Your task to perform on an android device: add a contact Image 0: 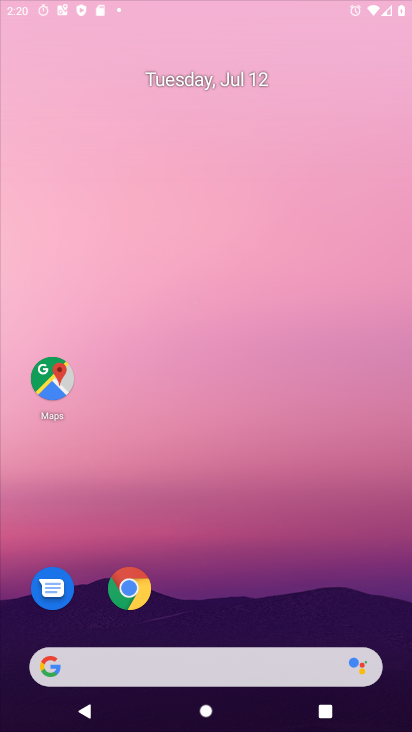
Step 0: click (287, 134)
Your task to perform on an android device: add a contact Image 1: 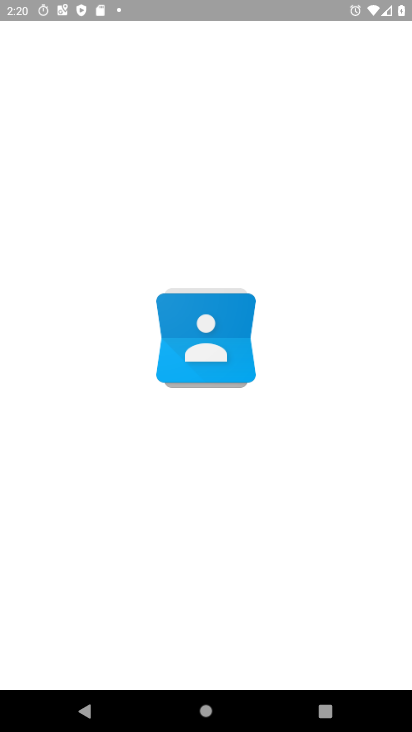
Step 1: drag from (197, 614) to (263, 165)
Your task to perform on an android device: add a contact Image 2: 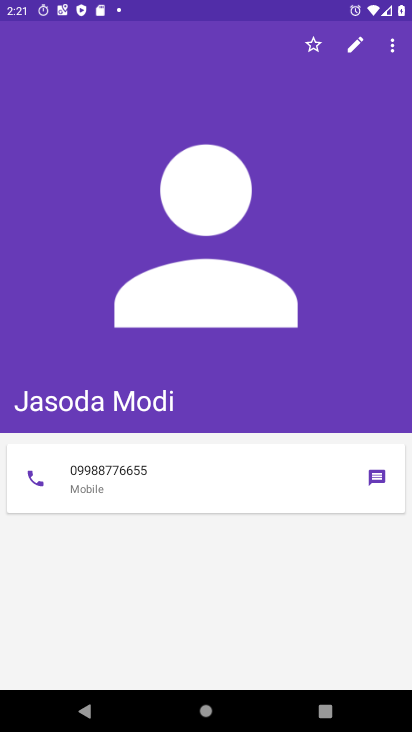
Step 2: press home button
Your task to perform on an android device: add a contact Image 3: 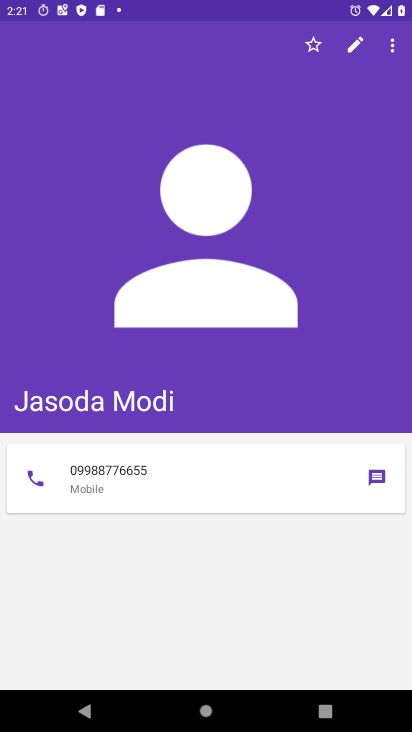
Step 3: press home button
Your task to perform on an android device: add a contact Image 4: 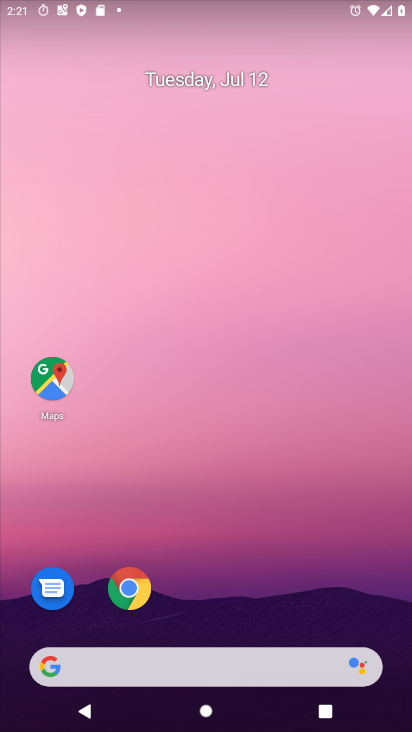
Step 4: drag from (219, 587) to (242, 143)
Your task to perform on an android device: add a contact Image 5: 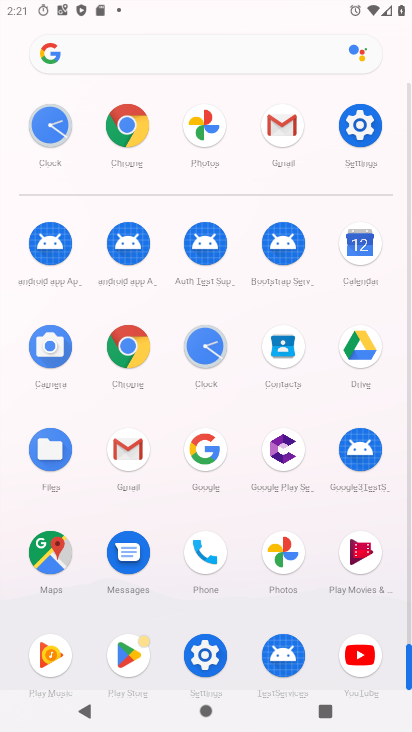
Step 5: click (278, 344)
Your task to perform on an android device: add a contact Image 6: 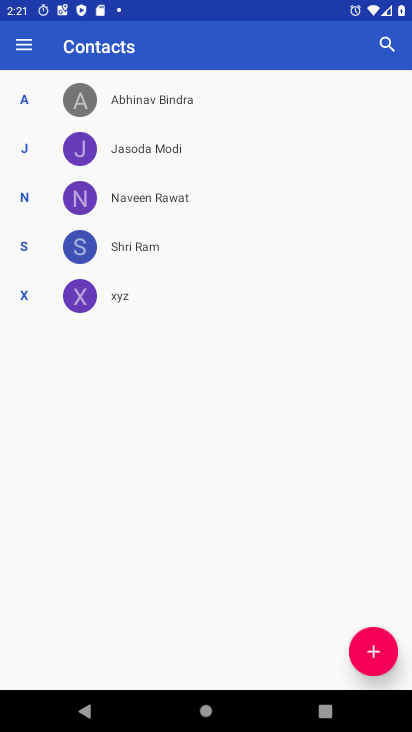
Step 6: drag from (186, 431) to (235, 91)
Your task to perform on an android device: add a contact Image 7: 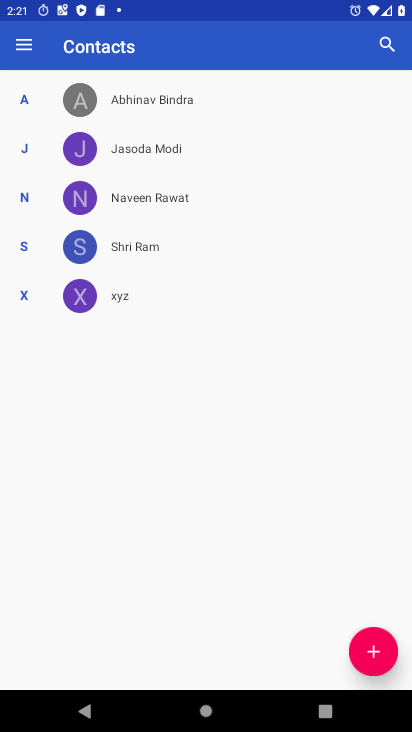
Step 7: click (376, 657)
Your task to perform on an android device: add a contact Image 8: 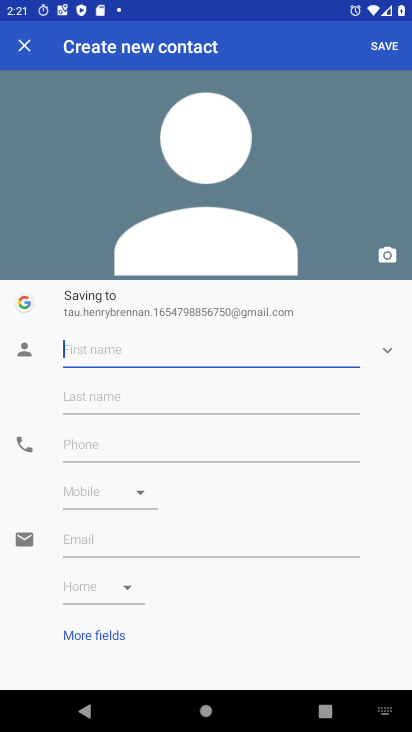
Step 8: click (355, 356)
Your task to perform on an android device: add a contact Image 9: 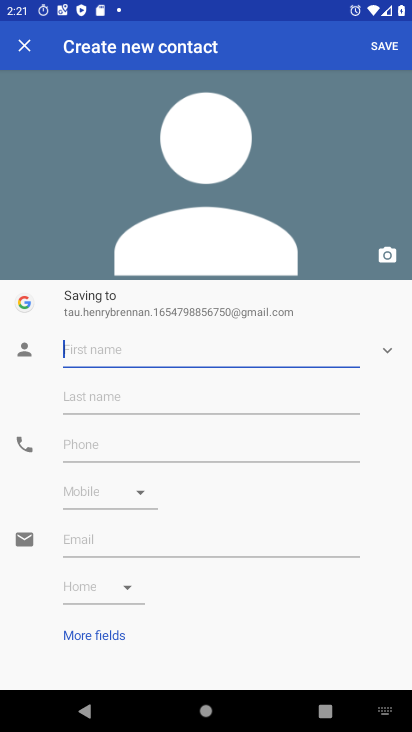
Step 9: type "bhhn"
Your task to perform on an android device: add a contact Image 10: 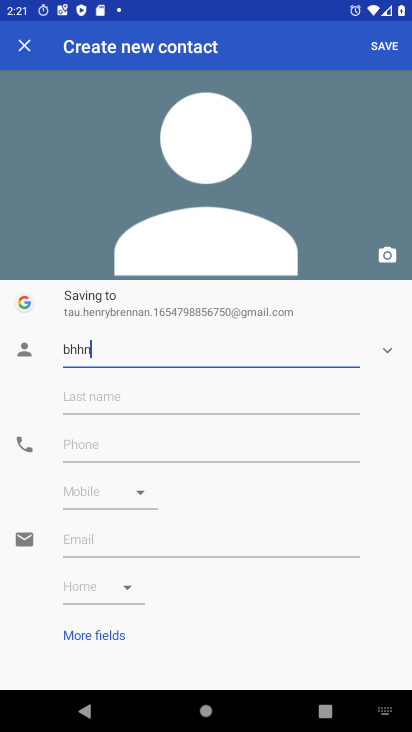
Step 10: click (387, 43)
Your task to perform on an android device: add a contact Image 11: 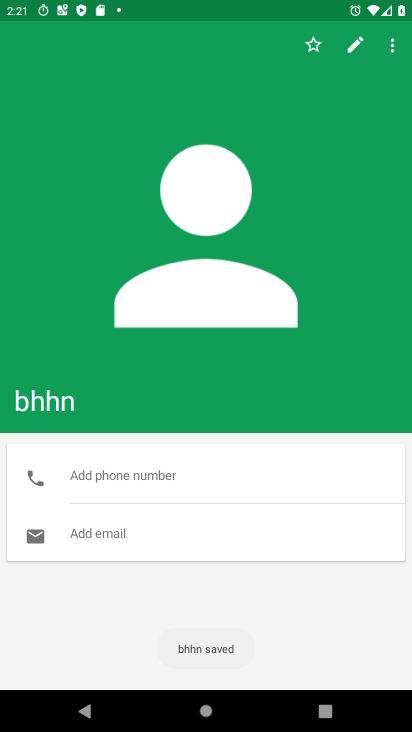
Step 11: task complete